Your task to perform on an android device: Open the calendar app, open the side menu, and click the "Day" option Image 0: 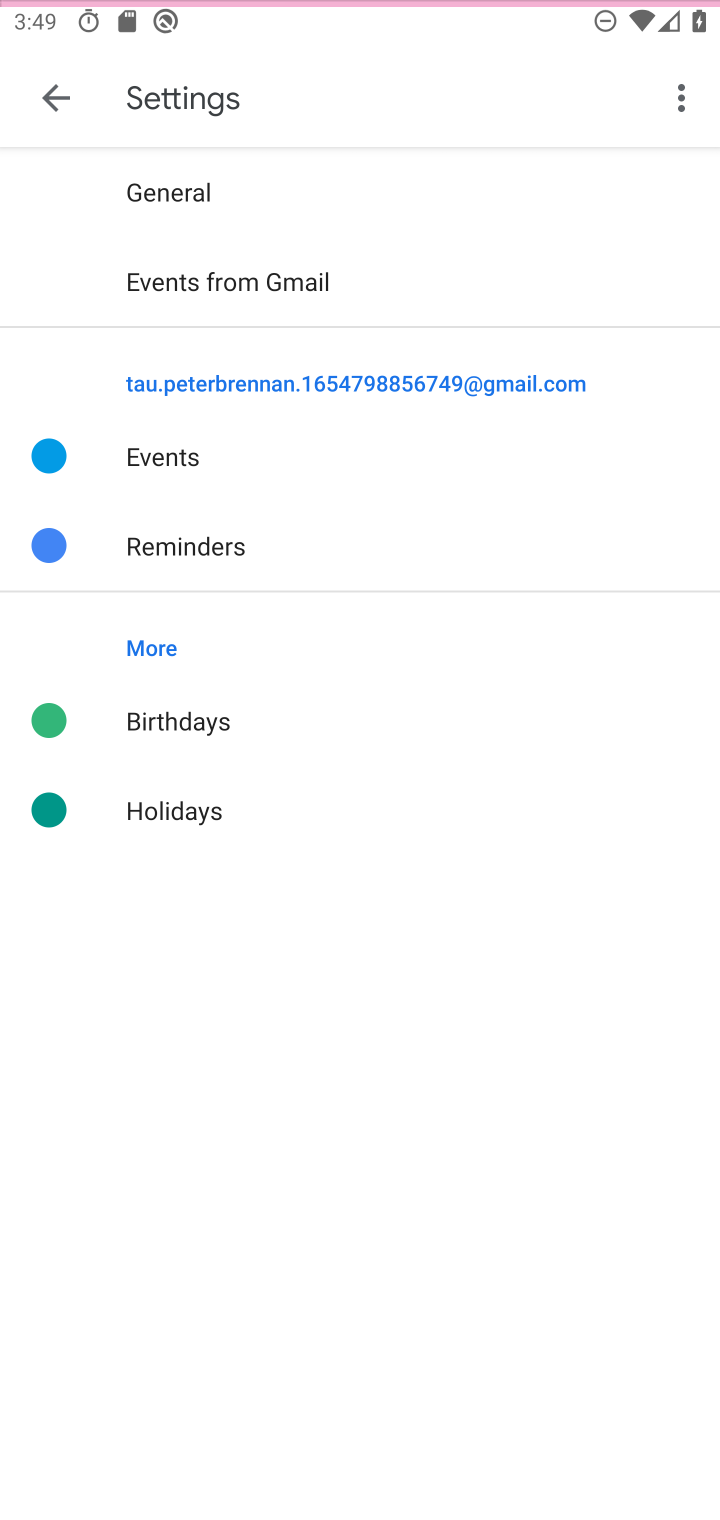
Step 0: press back button
Your task to perform on an android device: Open the calendar app, open the side menu, and click the "Day" option Image 1: 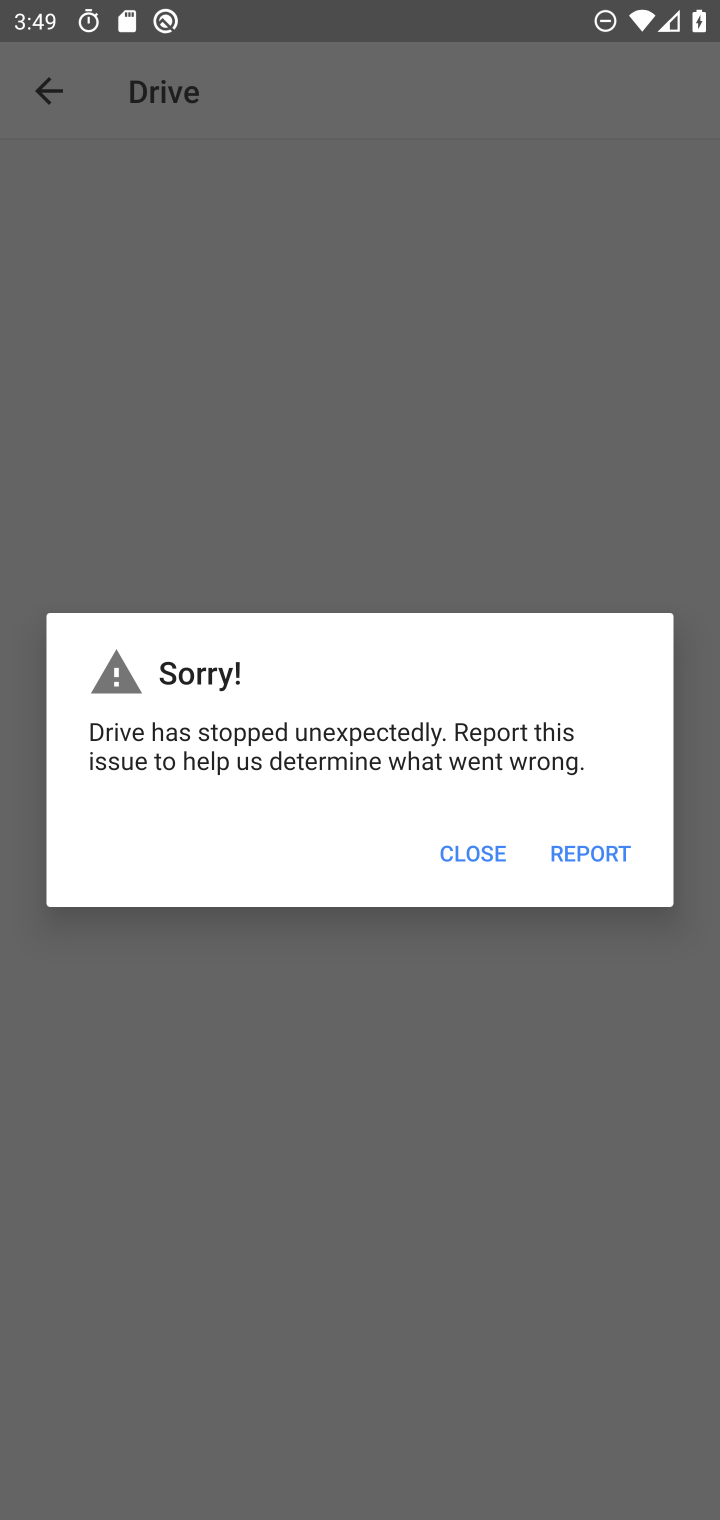
Step 1: press back button
Your task to perform on an android device: Open the calendar app, open the side menu, and click the "Day" option Image 2: 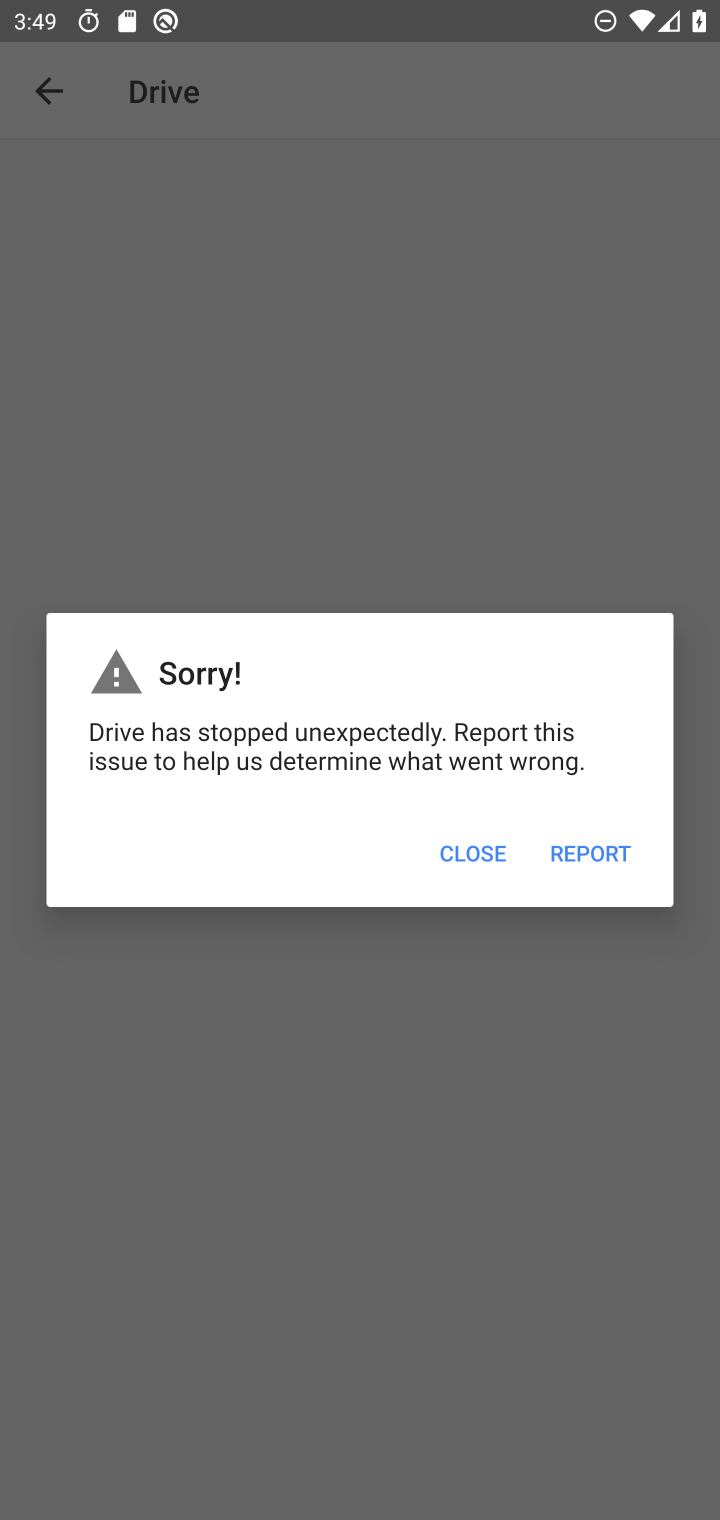
Step 2: click (477, 846)
Your task to perform on an android device: Open the calendar app, open the side menu, and click the "Day" option Image 3: 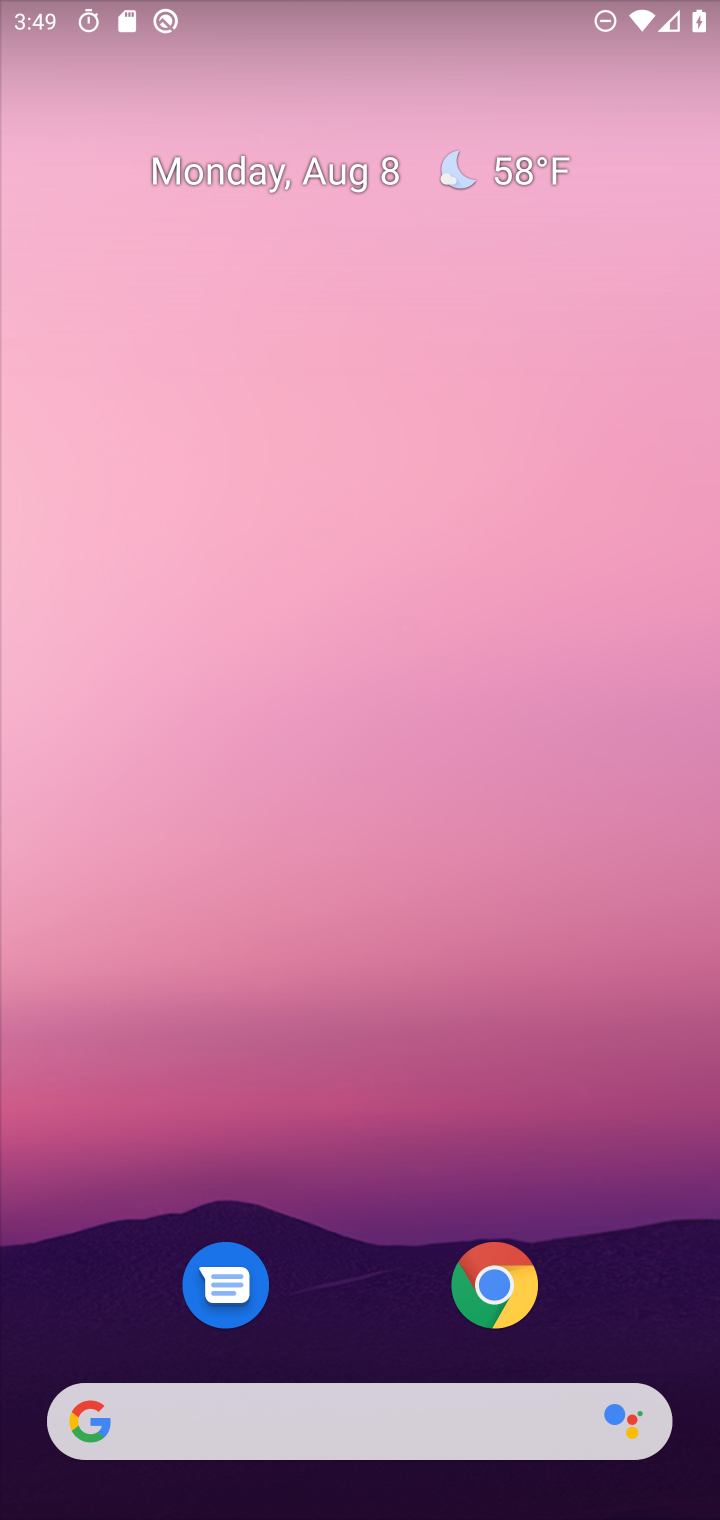
Step 3: drag from (494, 1261) to (497, 1176)
Your task to perform on an android device: Open the calendar app, open the side menu, and click the "Day" option Image 4: 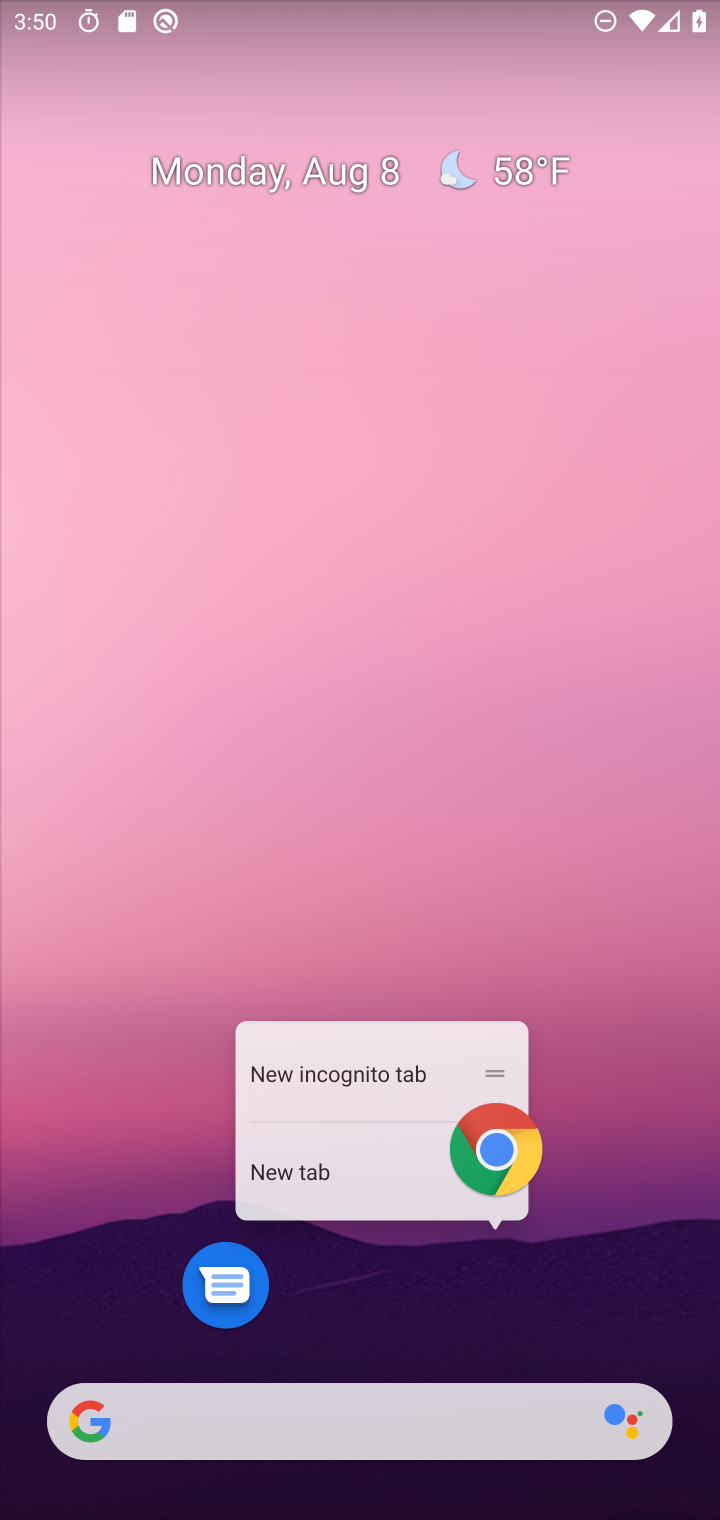
Step 4: click (347, 1300)
Your task to perform on an android device: Open the calendar app, open the side menu, and click the "Day" option Image 5: 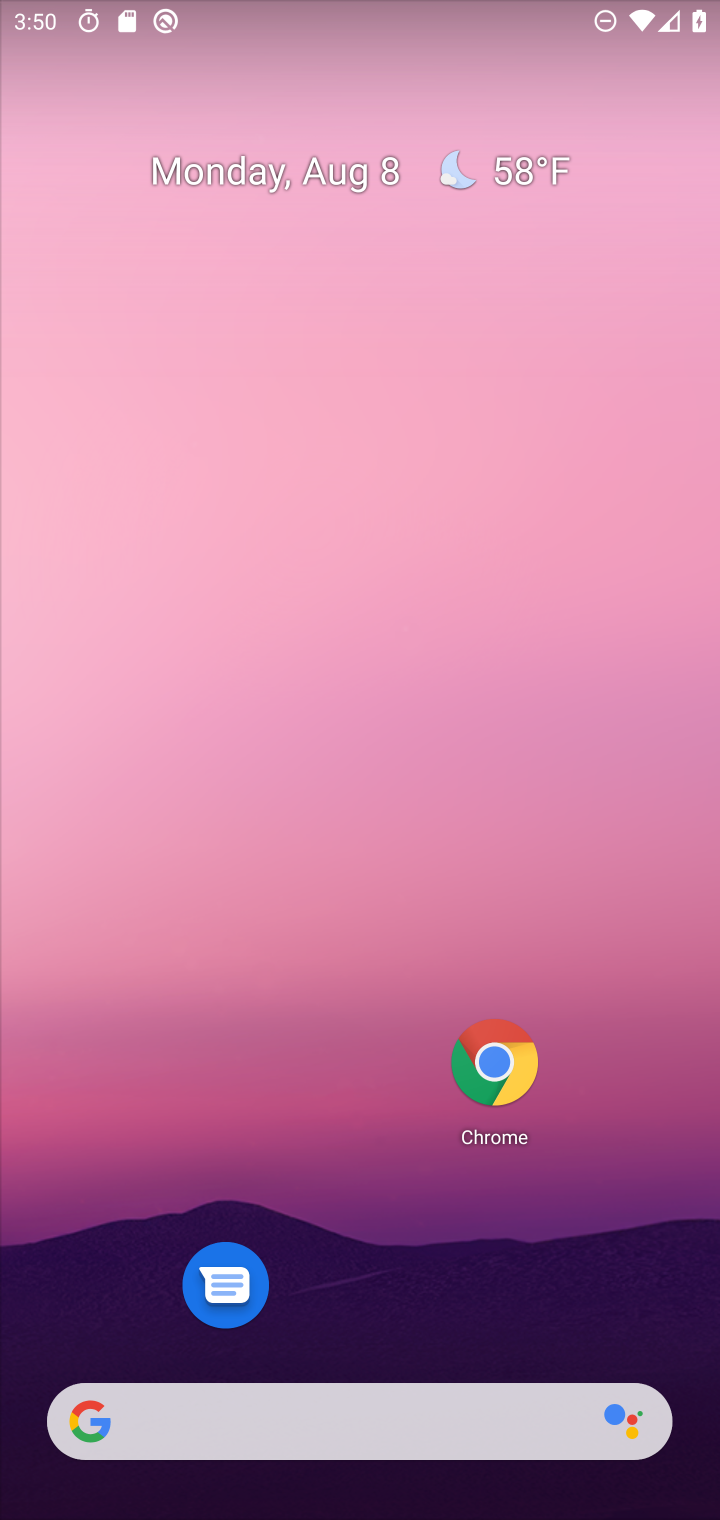
Step 5: drag from (392, 1249) to (319, 176)
Your task to perform on an android device: Open the calendar app, open the side menu, and click the "Day" option Image 6: 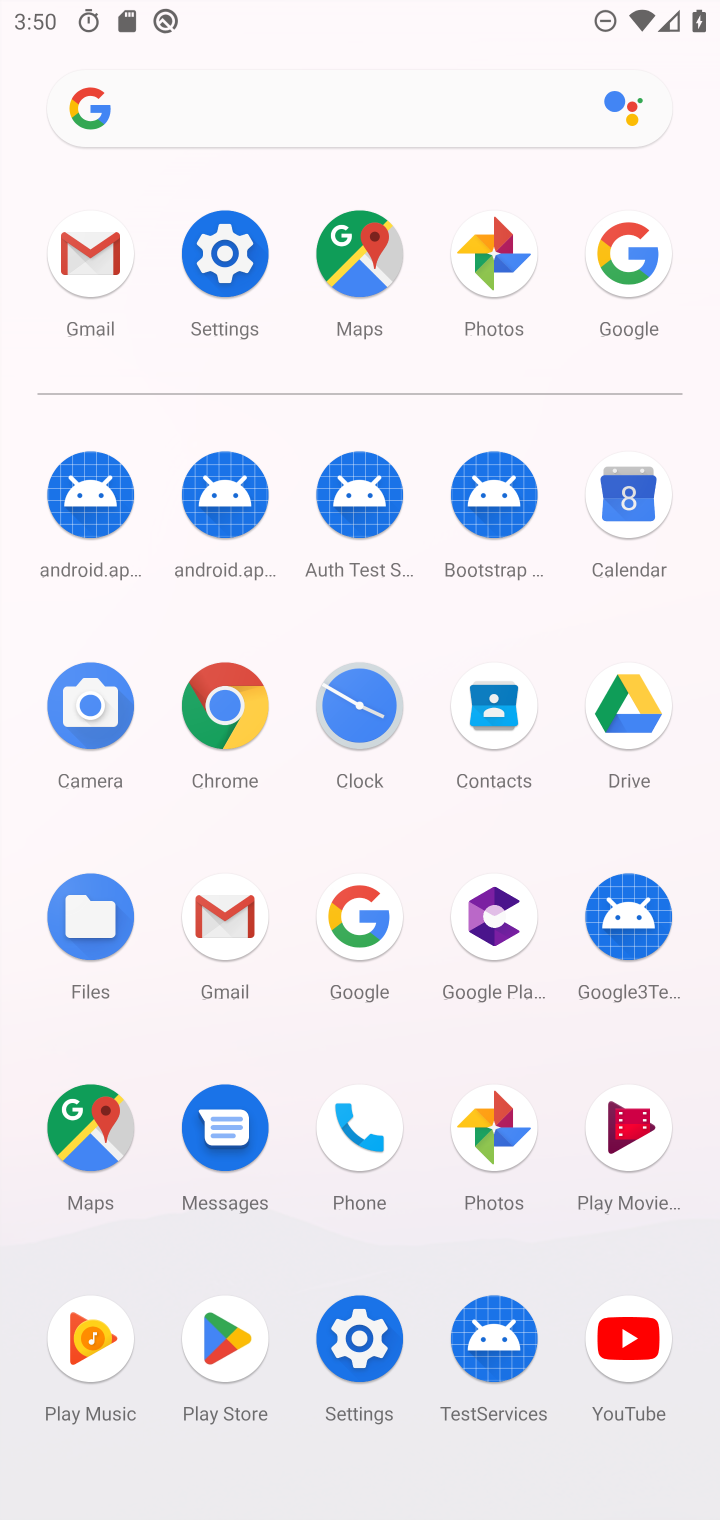
Step 6: click (622, 487)
Your task to perform on an android device: Open the calendar app, open the side menu, and click the "Day" option Image 7: 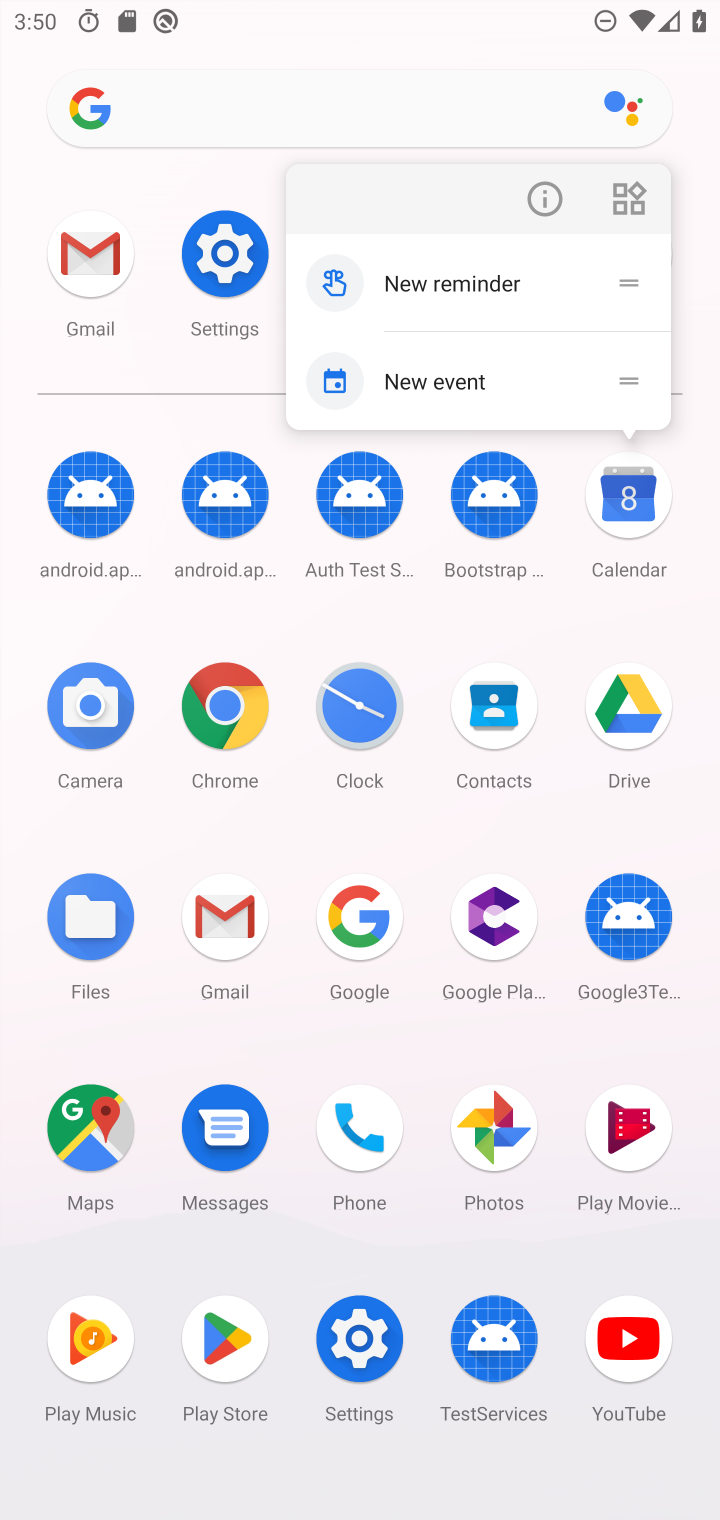
Step 7: click (622, 487)
Your task to perform on an android device: Open the calendar app, open the side menu, and click the "Day" option Image 8: 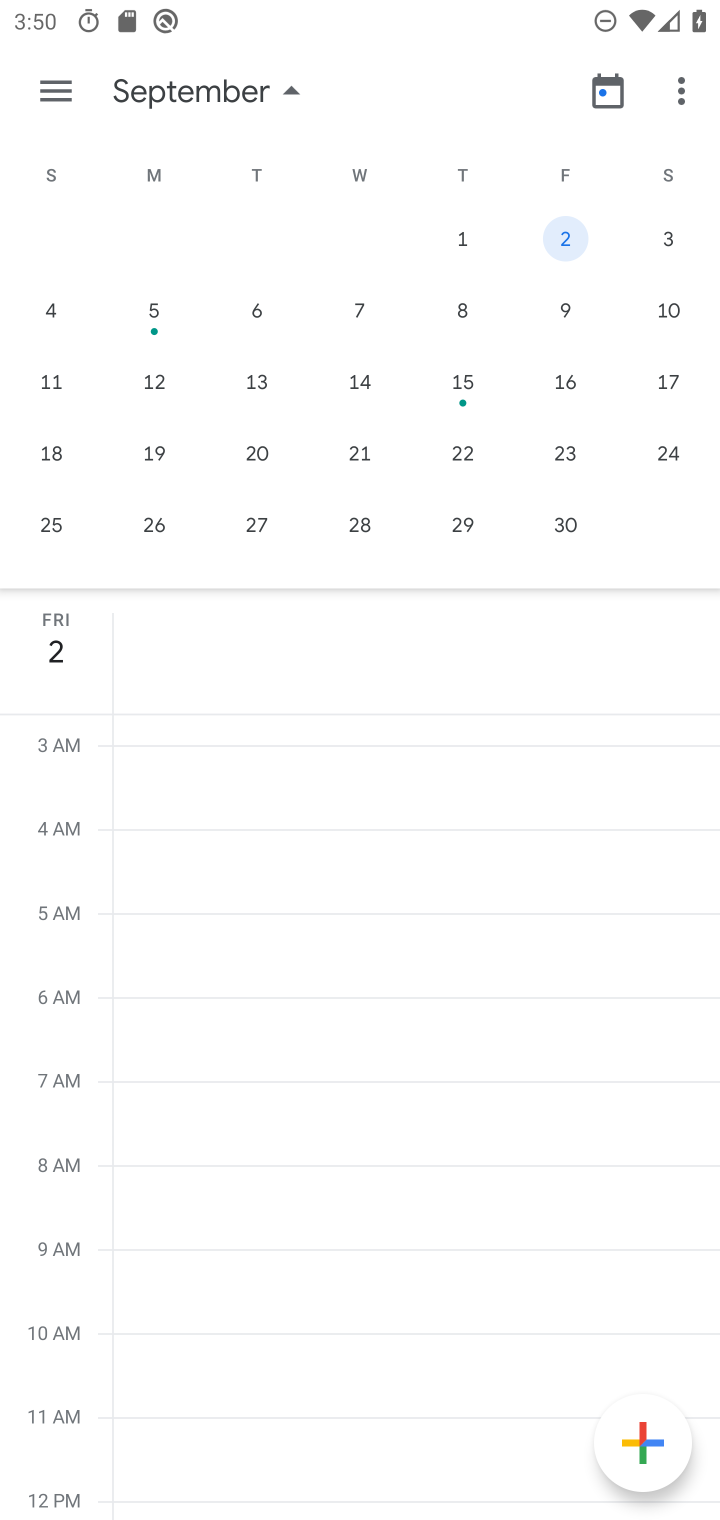
Step 8: click (622, 494)
Your task to perform on an android device: Open the calendar app, open the side menu, and click the "Day" option Image 9: 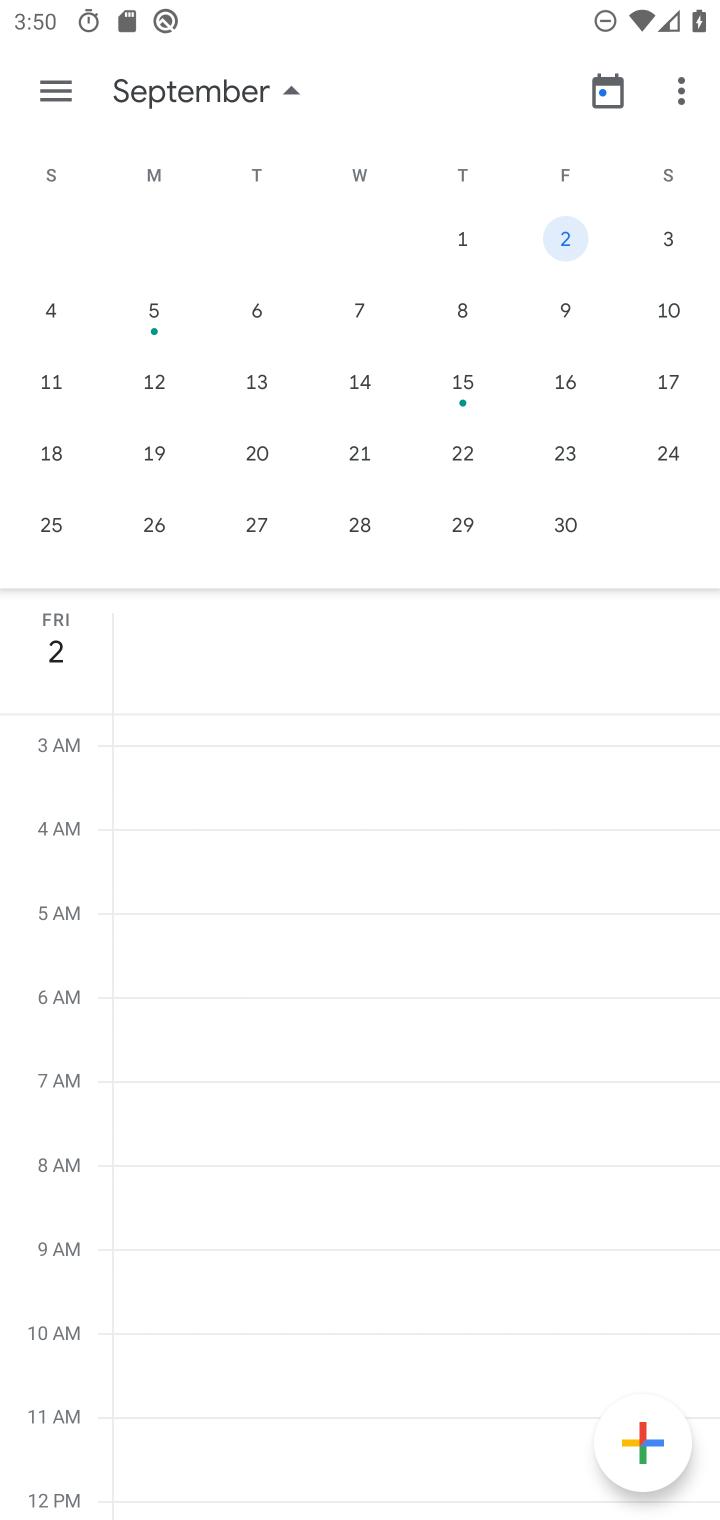
Step 9: click (55, 97)
Your task to perform on an android device: Open the calendar app, open the side menu, and click the "Day" option Image 10: 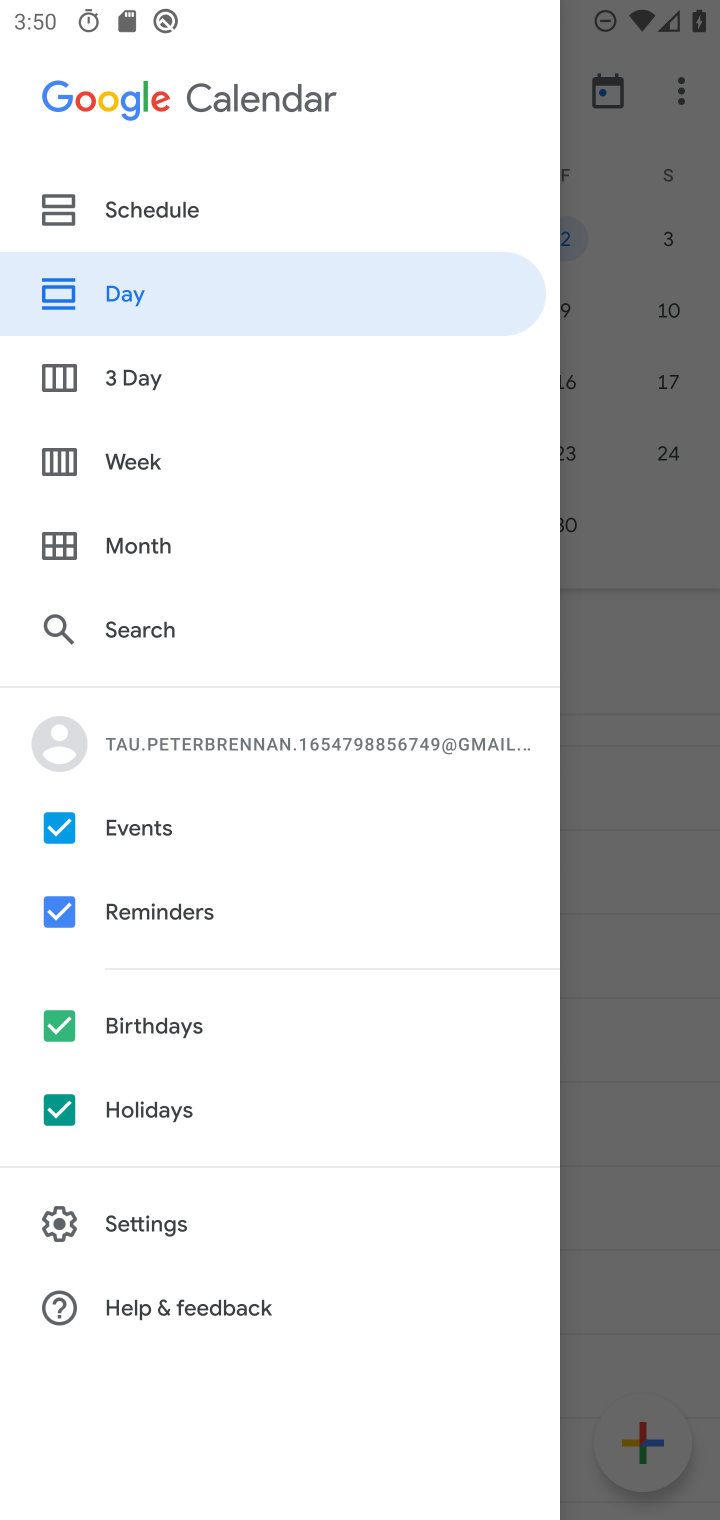
Step 10: click (172, 284)
Your task to perform on an android device: Open the calendar app, open the side menu, and click the "Day" option Image 11: 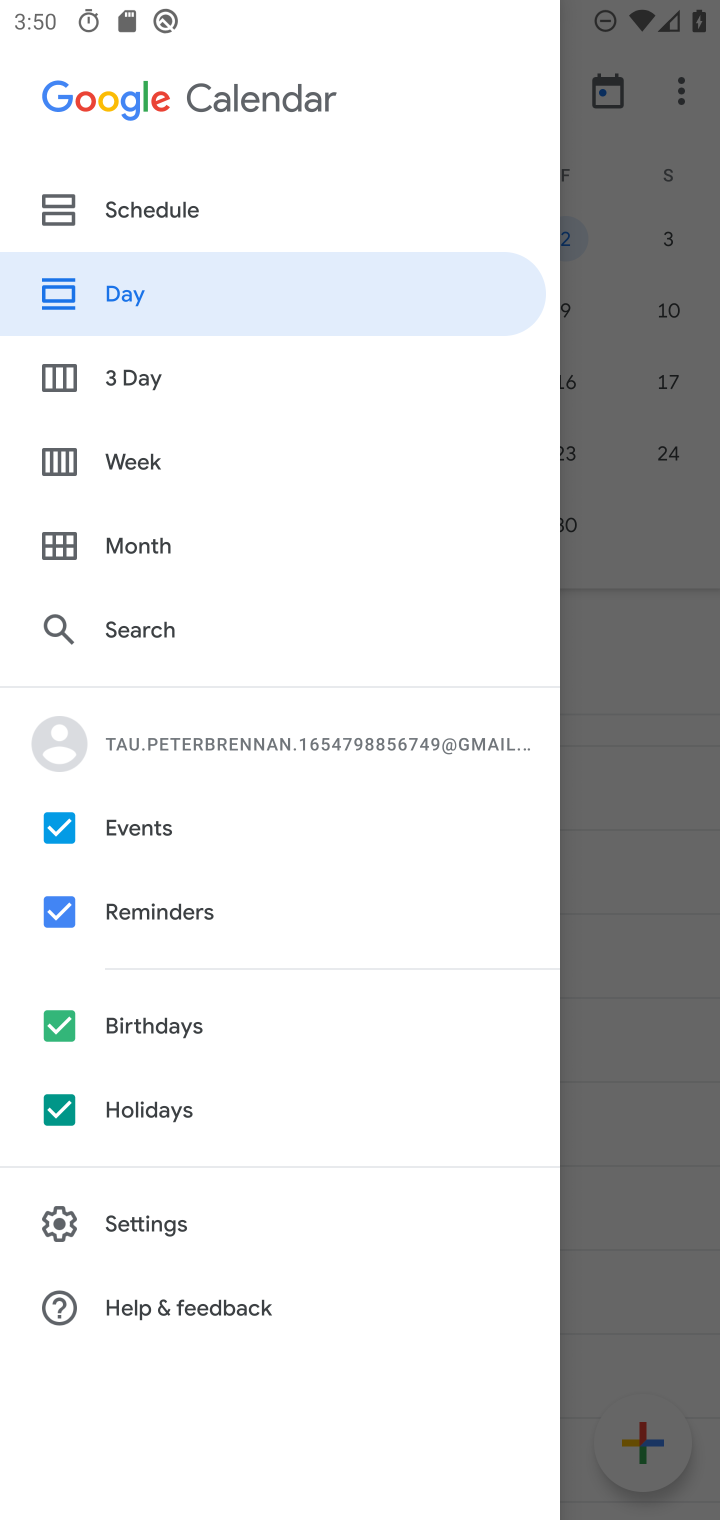
Step 11: task complete